Your task to perform on an android device: all mails in gmail Image 0: 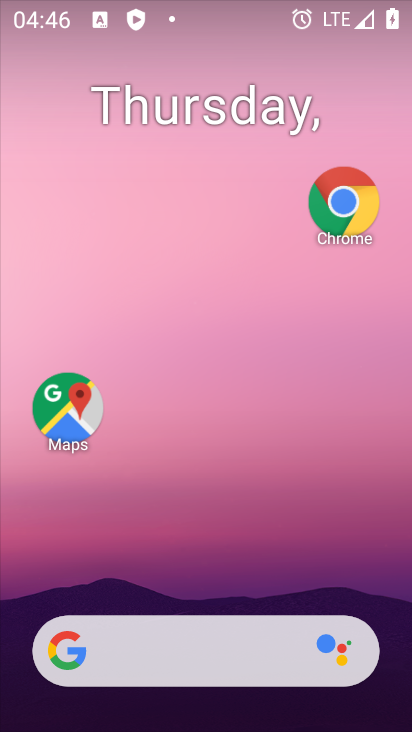
Step 0: drag from (162, 633) to (200, 14)
Your task to perform on an android device: all mails in gmail Image 1: 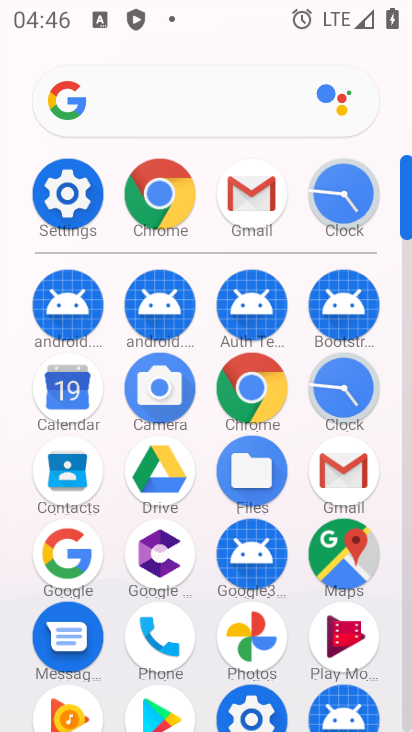
Step 1: click (350, 458)
Your task to perform on an android device: all mails in gmail Image 2: 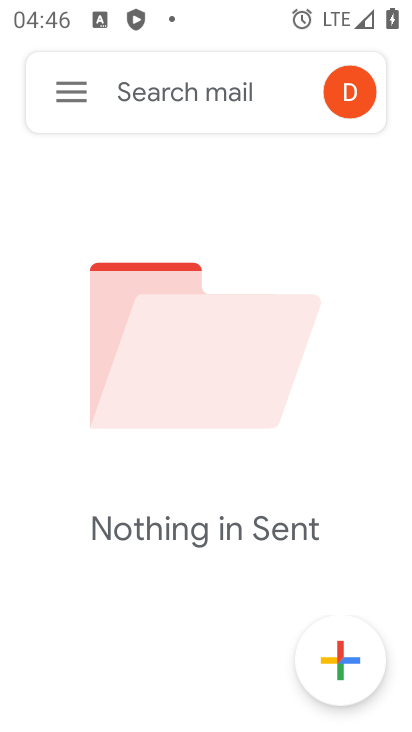
Step 2: click (49, 86)
Your task to perform on an android device: all mails in gmail Image 3: 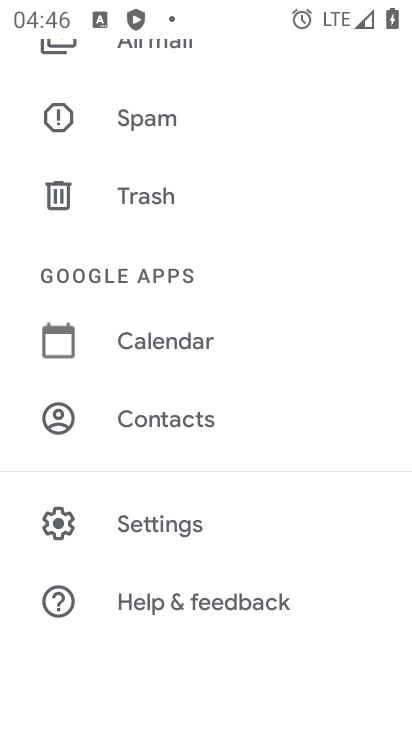
Step 3: drag from (189, 154) to (229, 670)
Your task to perform on an android device: all mails in gmail Image 4: 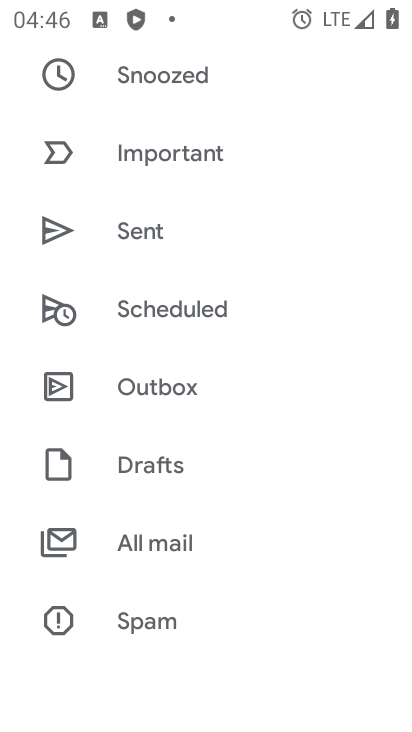
Step 4: click (181, 542)
Your task to perform on an android device: all mails in gmail Image 5: 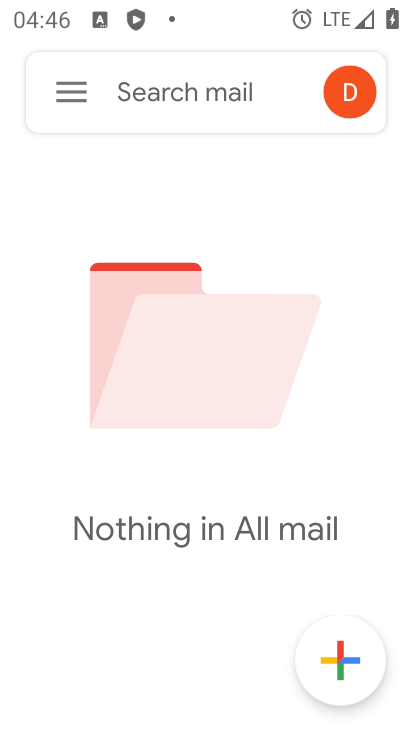
Step 5: task complete